Your task to perform on an android device: open chrome and create a bookmark for the current page Image 0: 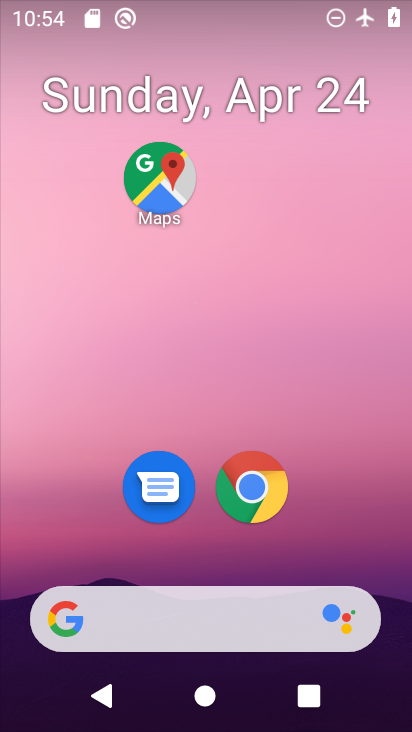
Step 0: click (260, 478)
Your task to perform on an android device: open chrome and create a bookmark for the current page Image 1: 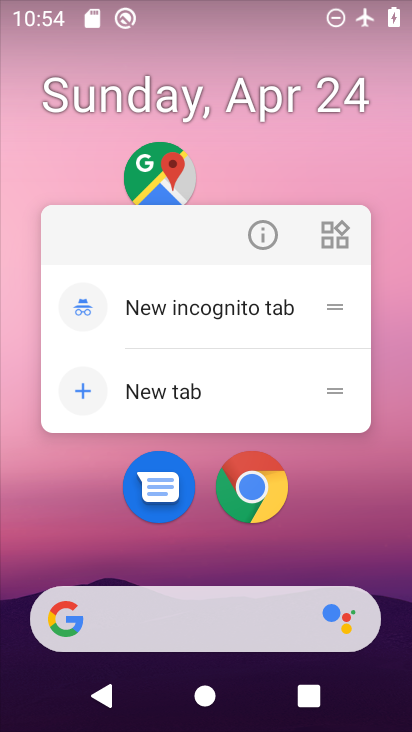
Step 1: click (263, 236)
Your task to perform on an android device: open chrome and create a bookmark for the current page Image 2: 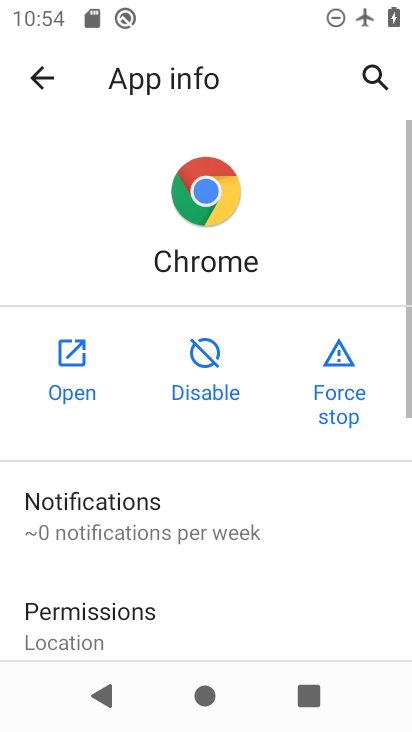
Step 2: click (65, 361)
Your task to perform on an android device: open chrome and create a bookmark for the current page Image 3: 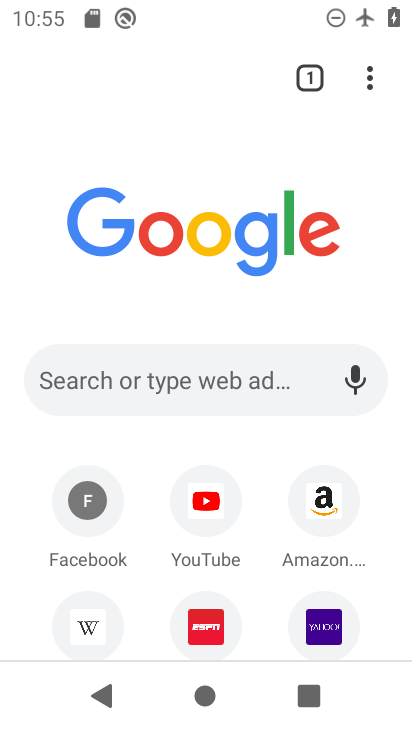
Step 3: click (370, 86)
Your task to perform on an android device: open chrome and create a bookmark for the current page Image 4: 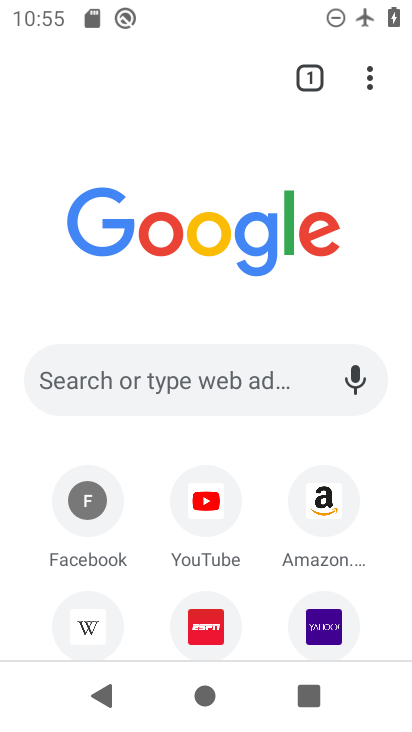
Step 4: drag from (285, 206) to (346, 72)
Your task to perform on an android device: open chrome and create a bookmark for the current page Image 5: 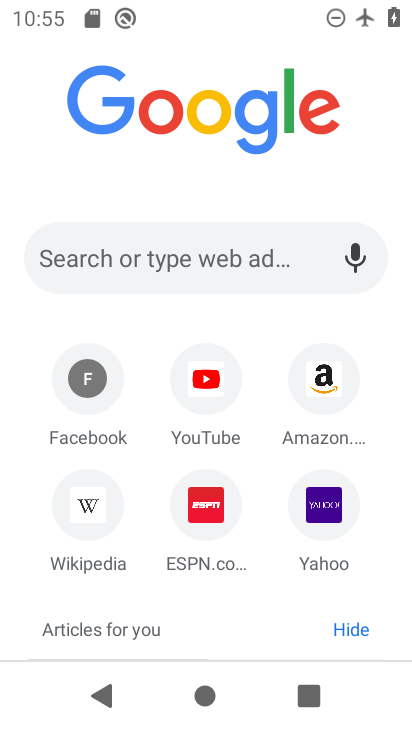
Step 5: drag from (296, 128) to (214, 513)
Your task to perform on an android device: open chrome and create a bookmark for the current page Image 6: 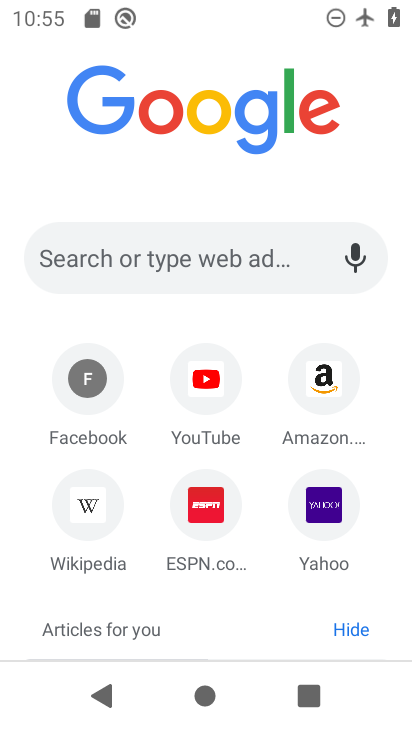
Step 6: drag from (262, 104) to (290, 640)
Your task to perform on an android device: open chrome and create a bookmark for the current page Image 7: 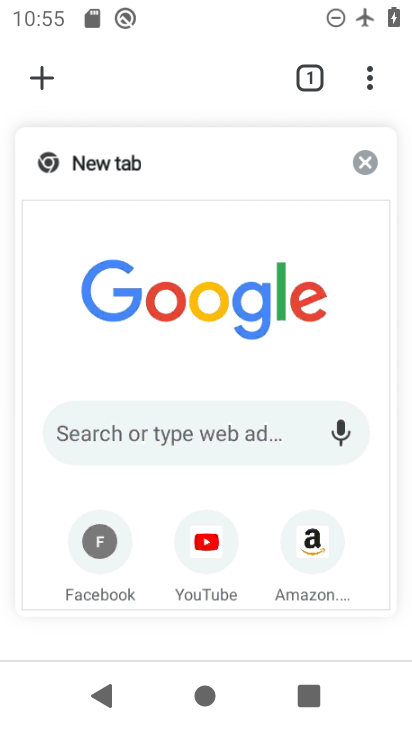
Step 7: drag from (280, 74) to (361, 76)
Your task to perform on an android device: open chrome and create a bookmark for the current page Image 8: 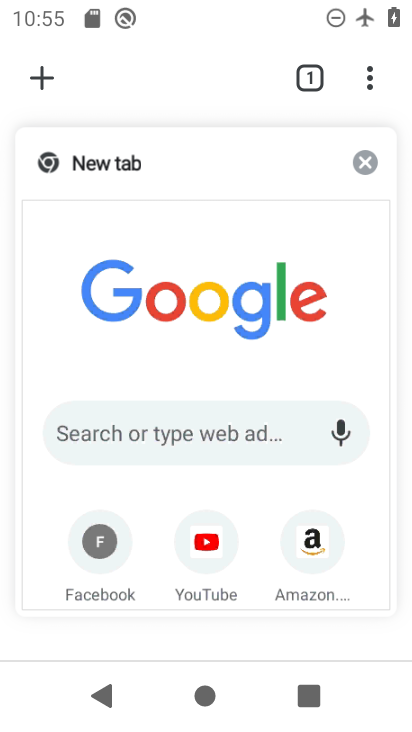
Step 8: drag from (280, 74) to (359, 70)
Your task to perform on an android device: open chrome and create a bookmark for the current page Image 9: 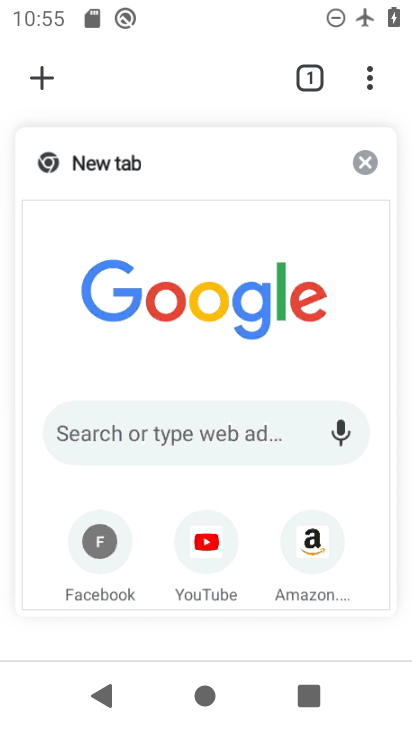
Step 9: click (361, 66)
Your task to perform on an android device: open chrome and create a bookmark for the current page Image 10: 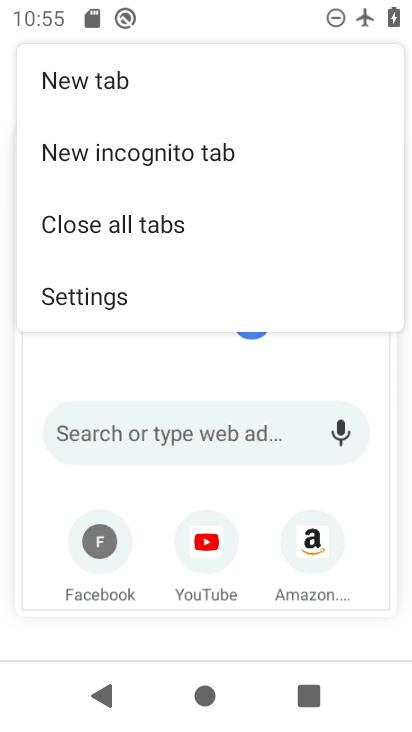
Step 10: click (359, 64)
Your task to perform on an android device: open chrome and create a bookmark for the current page Image 11: 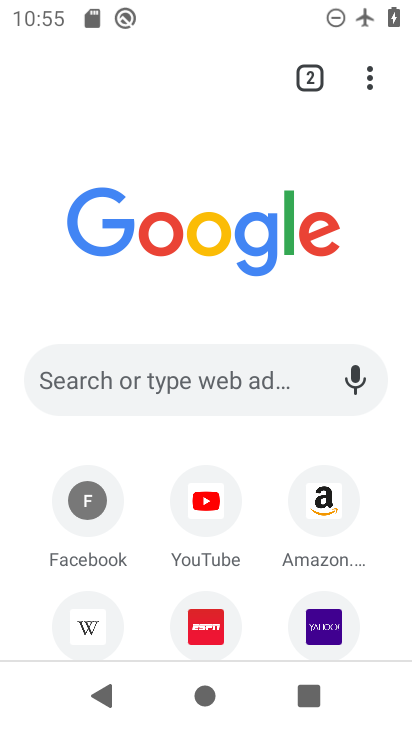
Step 11: click (363, 77)
Your task to perform on an android device: open chrome and create a bookmark for the current page Image 12: 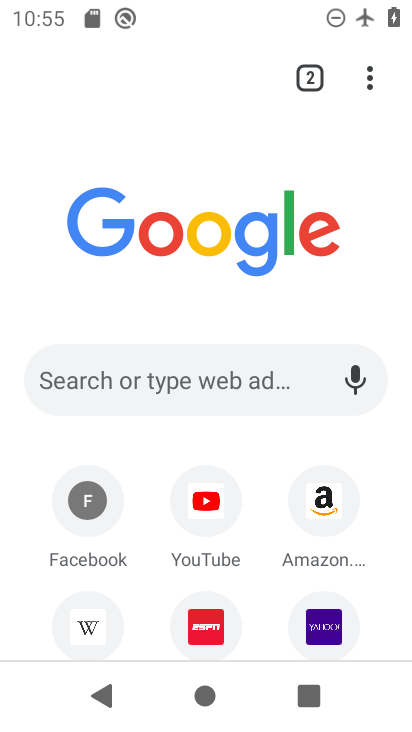
Step 12: click (363, 77)
Your task to perform on an android device: open chrome and create a bookmark for the current page Image 13: 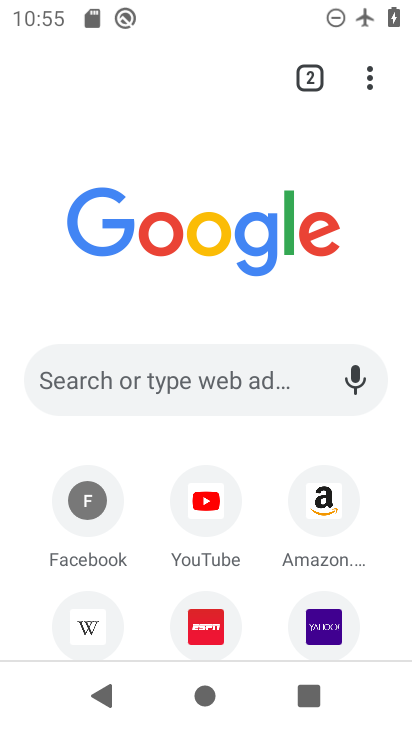
Step 13: drag from (285, 16) to (197, 237)
Your task to perform on an android device: open chrome and create a bookmark for the current page Image 14: 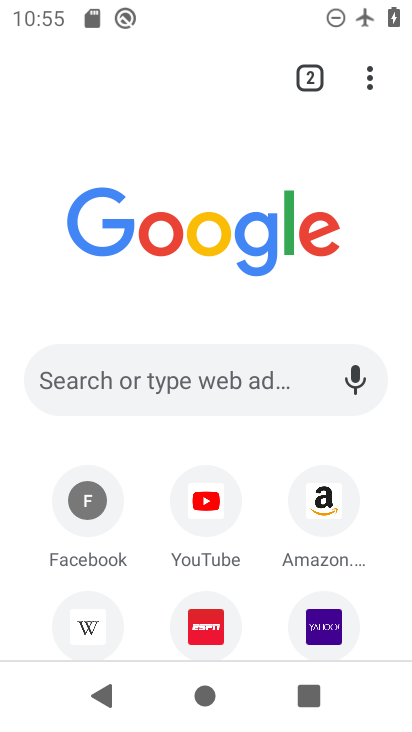
Step 14: click (303, 70)
Your task to perform on an android device: open chrome and create a bookmark for the current page Image 15: 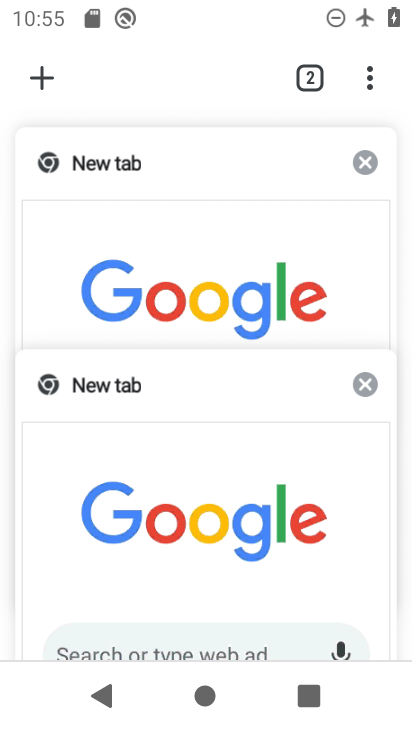
Step 15: click (194, 88)
Your task to perform on an android device: open chrome and create a bookmark for the current page Image 16: 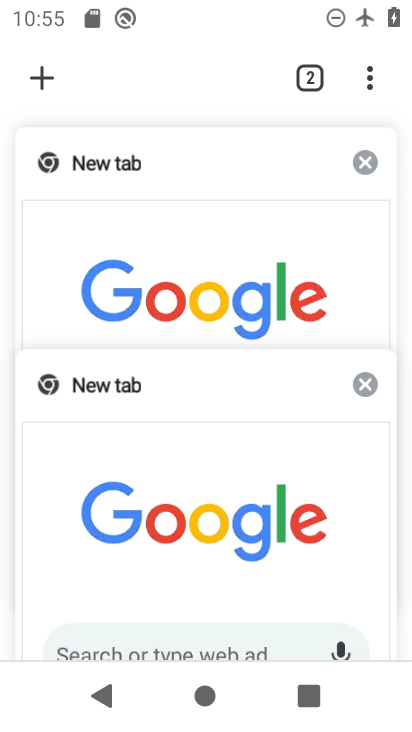
Step 16: click (204, 245)
Your task to perform on an android device: open chrome and create a bookmark for the current page Image 17: 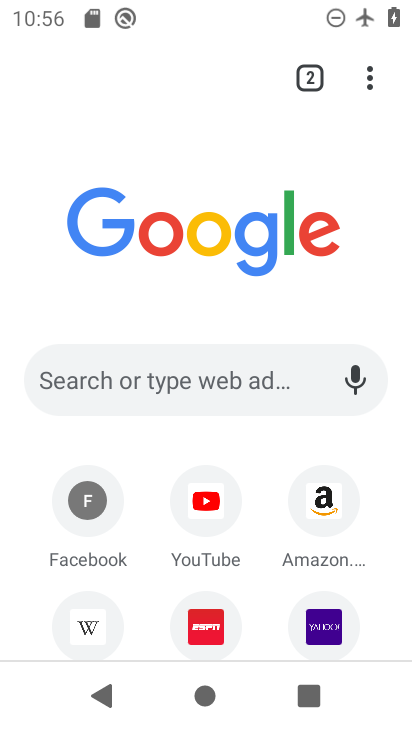
Step 17: click (367, 81)
Your task to perform on an android device: open chrome and create a bookmark for the current page Image 18: 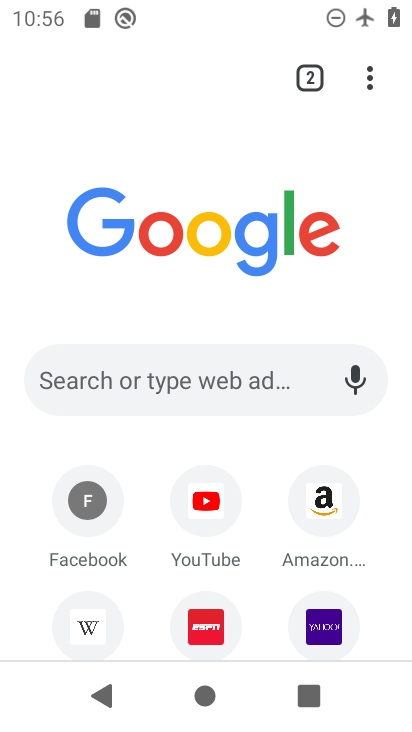
Step 18: click (367, 81)
Your task to perform on an android device: open chrome and create a bookmark for the current page Image 19: 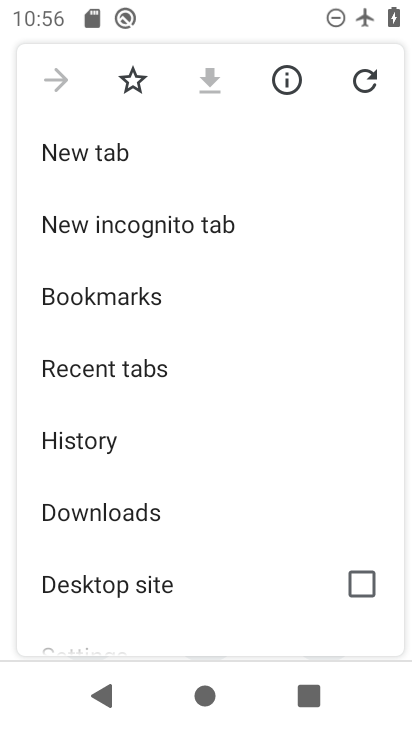
Step 19: click (138, 73)
Your task to perform on an android device: open chrome and create a bookmark for the current page Image 20: 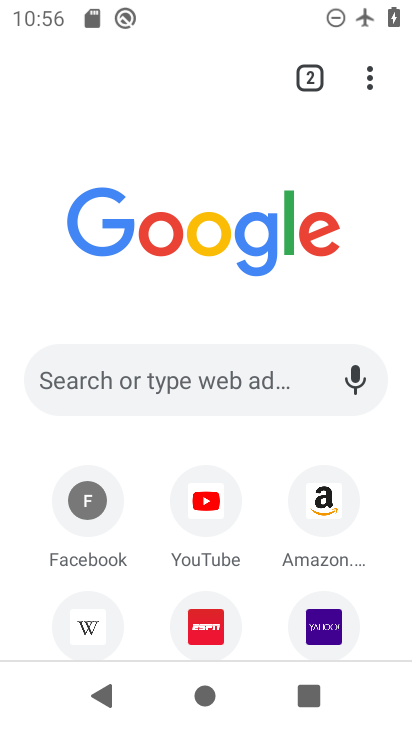
Step 20: task complete